Your task to perform on an android device: turn off improve location accuracy Image 0: 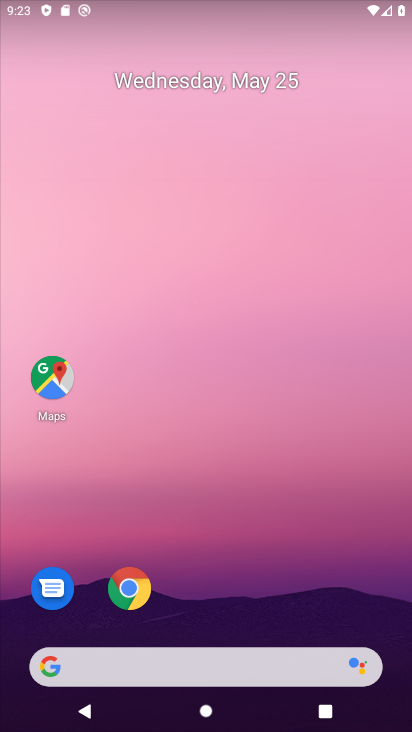
Step 0: drag from (224, 596) to (239, 45)
Your task to perform on an android device: turn off improve location accuracy Image 1: 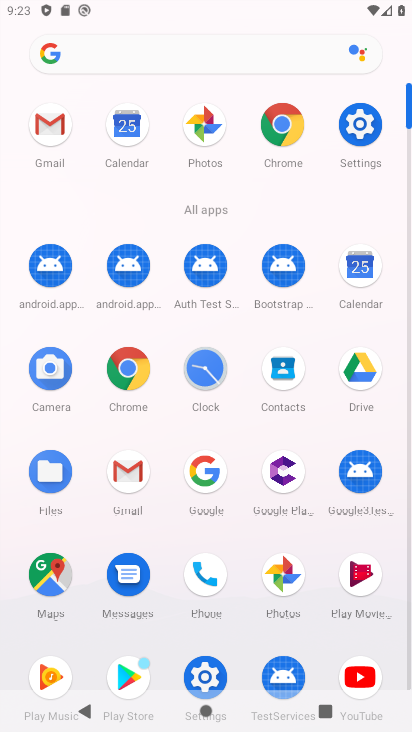
Step 1: click (356, 120)
Your task to perform on an android device: turn off improve location accuracy Image 2: 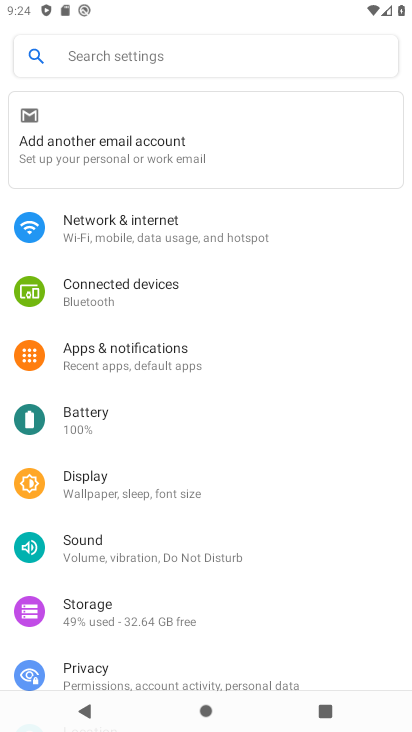
Step 2: drag from (133, 624) to (181, 206)
Your task to perform on an android device: turn off improve location accuracy Image 3: 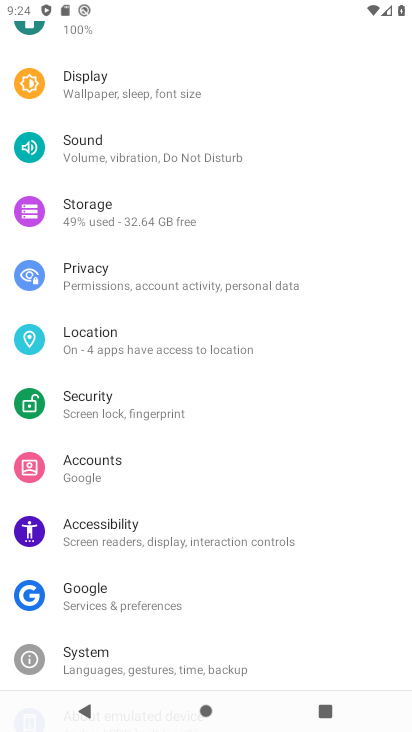
Step 3: click (129, 351)
Your task to perform on an android device: turn off improve location accuracy Image 4: 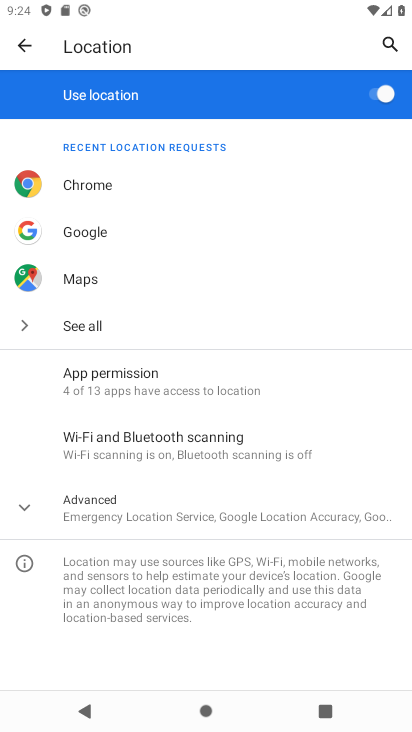
Step 4: click (114, 500)
Your task to perform on an android device: turn off improve location accuracy Image 5: 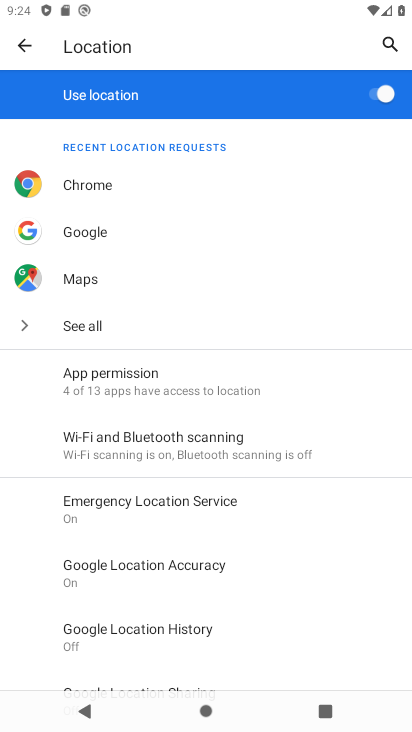
Step 5: click (171, 574)
Your task to perform on an android device: turn off improve location accuracy Image 6: 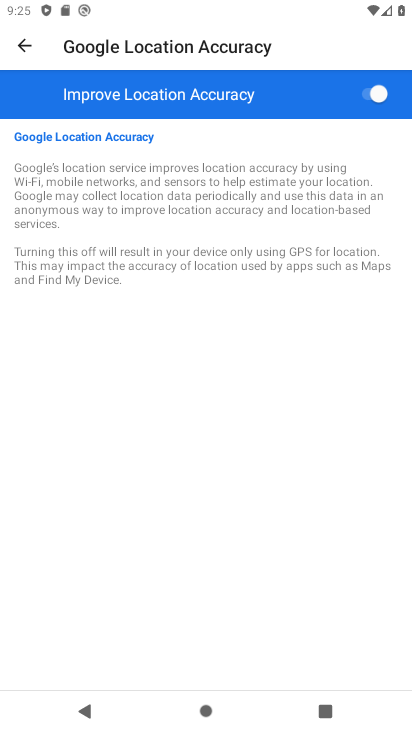
Step 6: click (378, 99)
Your task to perform on an android device: turn off improve location accuracy Image 7: 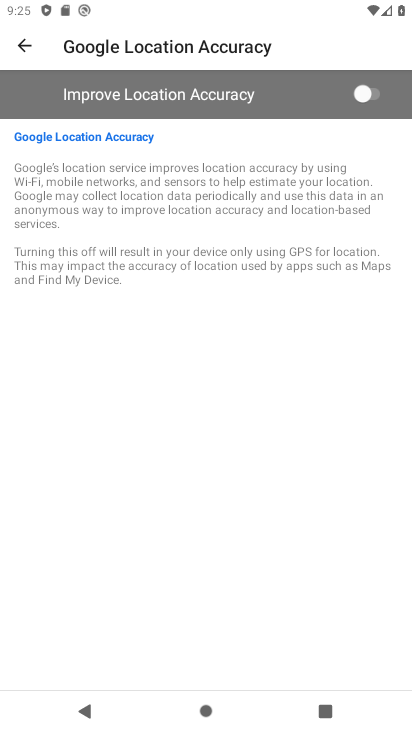
Step 7: task complete